Your task to perform on an android device: turn off location Image 0: 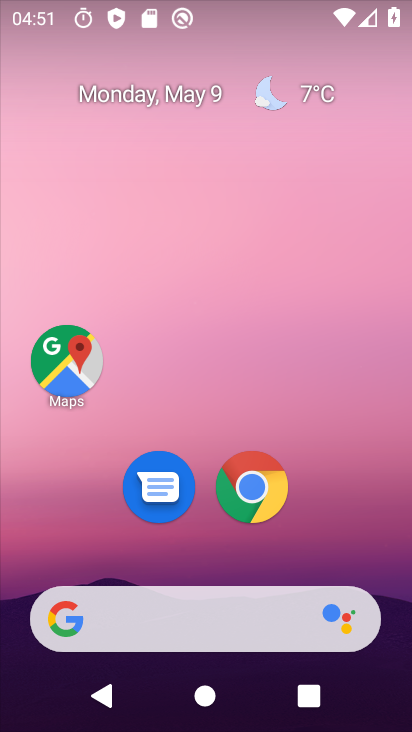
Step 0: drag from (193, 502) to (182, 68)
Your task to perform on an android device: turn off location Image 1: 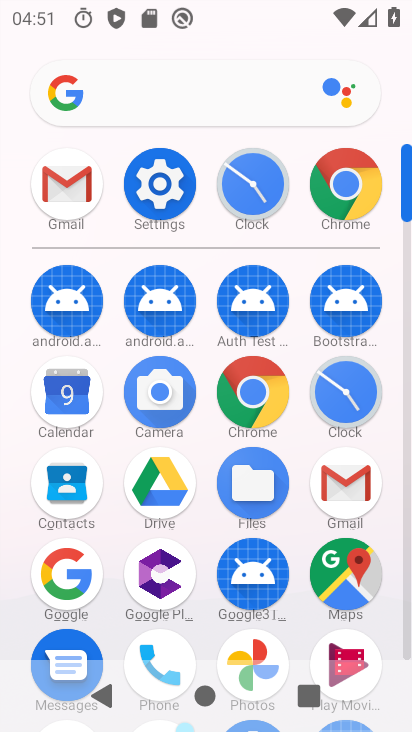
Step 1: click (158, 200)
Your task to perform on an android device: turn off location Image 2: 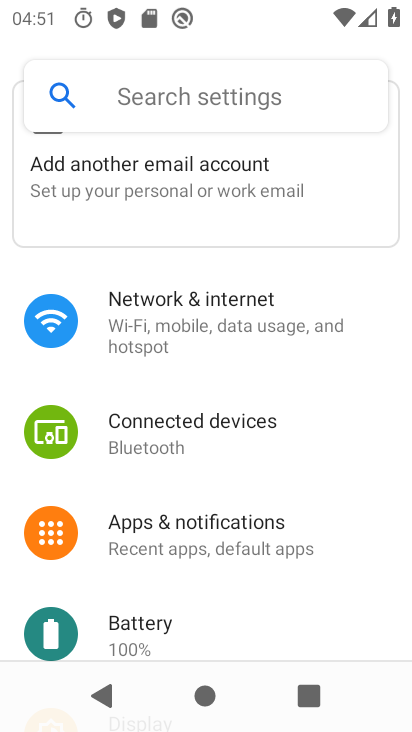
Step 2: drag from (232, 577) to (195, 243)
Your task to perform on an android device: turn off location Image 3: 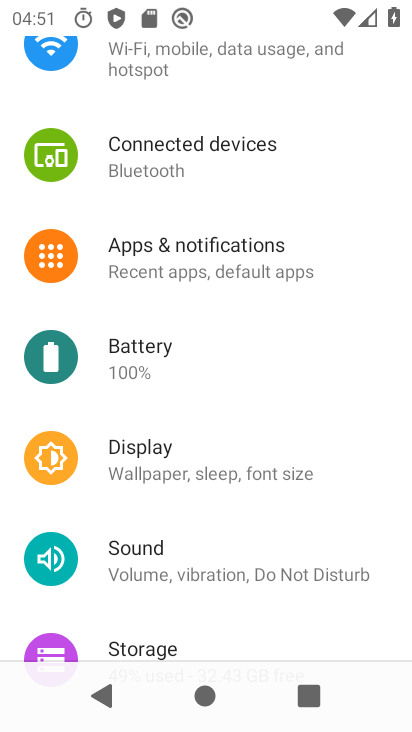
Step 3: drag from (199, 577) to (202, 371)
Your task to perform on an android device: turn off location Image 4: 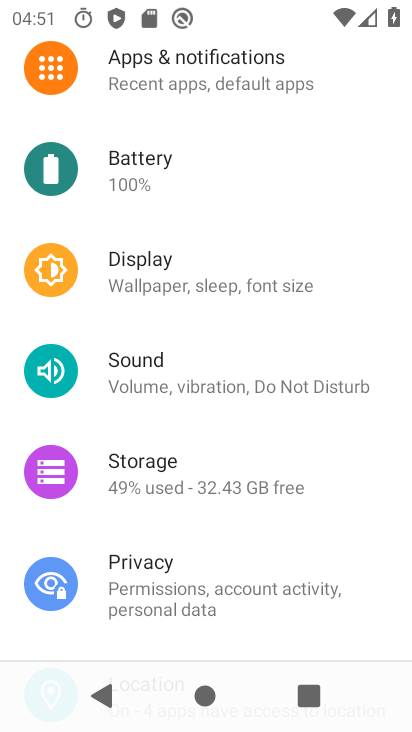
Step 4: drag from (241, 619) to (253, 300)
Your task to perform on an android device: turn off location Image 5: 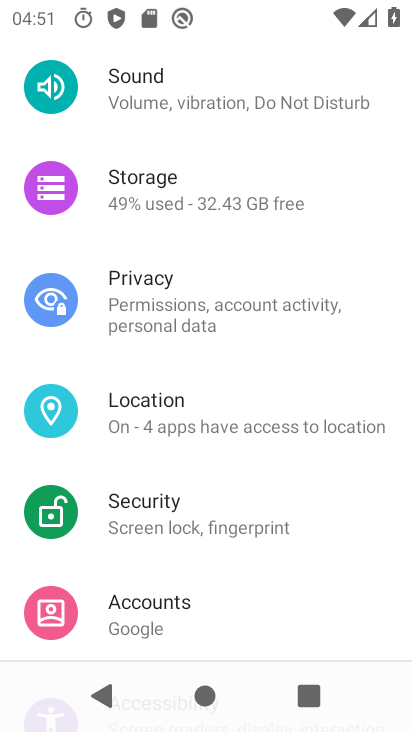
Step 5: click (222, 411)
Your task to perform on an android device: turn off location Image 6: 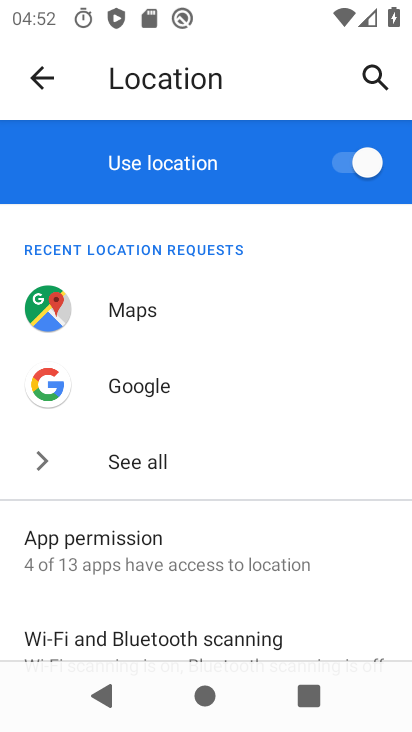
Step 6: click (332, 166)
Your task to perform on an android device: turn off location Image 7: 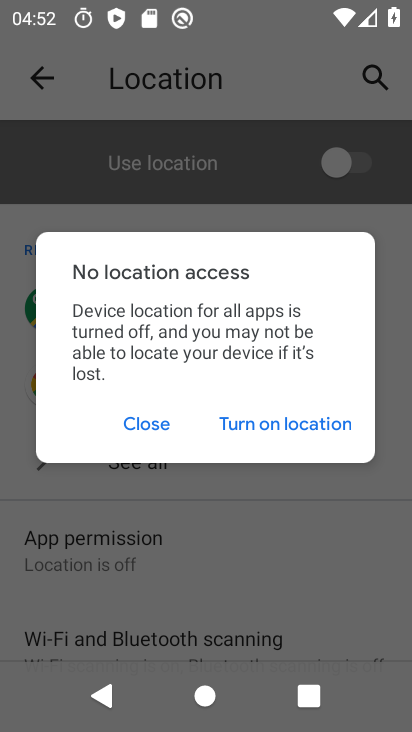
Step 7: task complete